Your task to perform on an android device: What's on my calendar tomorrow? Image 0: 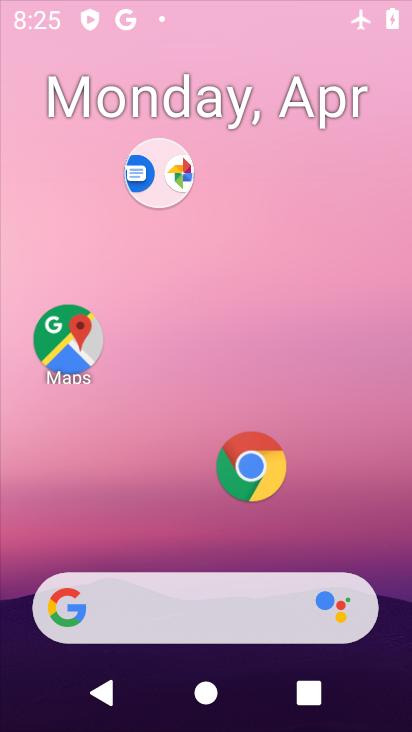
Step 0: click (296, 148)
Your task to perform on an android device: What's on my calendar tomorrow? Image 1: 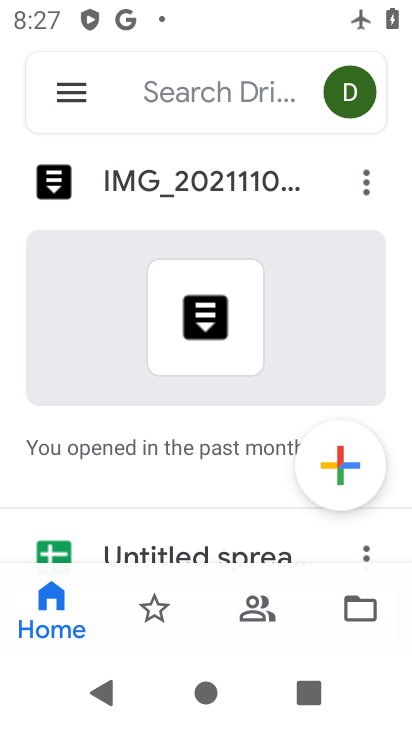
Step 1: click (284, 36)
Your task to perform on an android device: What's on my calendar tomorrow? Image 2: 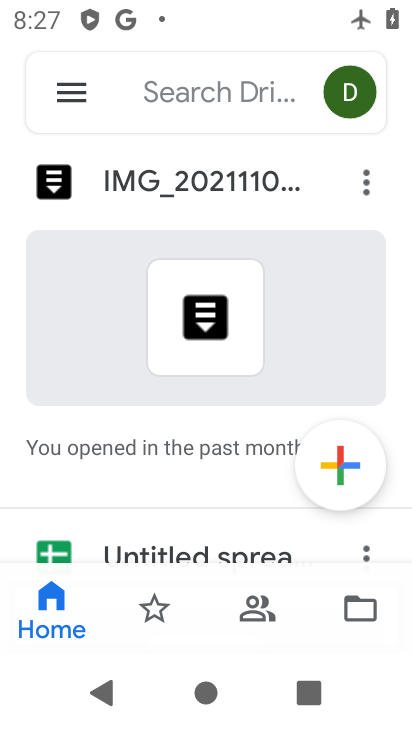
Step 2: drag from (199, 459) to (236, 150)
Your task to perform on an android device: What's on my calendar tomorrow? Image 3: 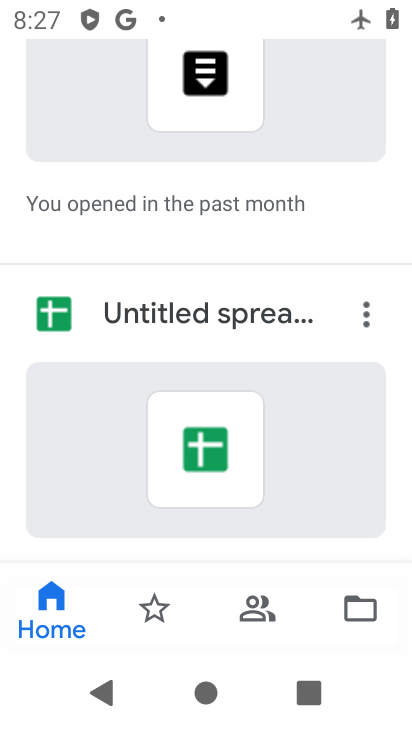
Step 3: press home button
Your task to perform on an android device: What's on my calendar tomorrow? Image 4: 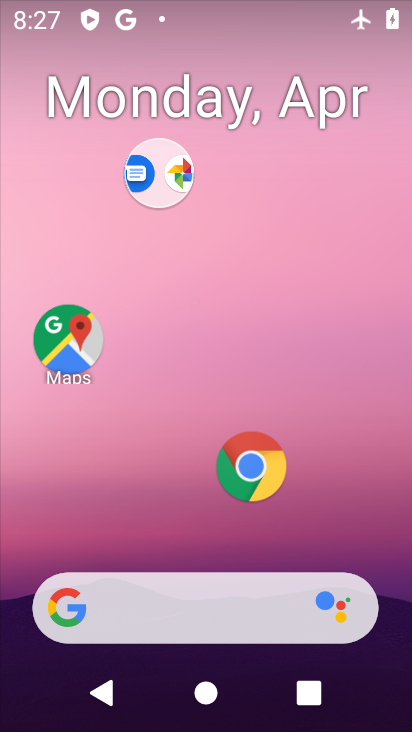
Step 4: drag from (193, 493) to (214, 89)
Your task to perform on an android device: What's on my calendar tomorrow? Image 5: 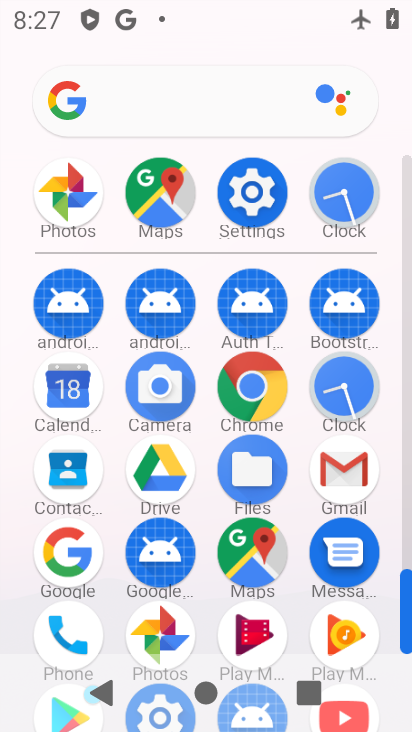
Step 5: click (53, 387)
Your task to perform on an android device: What's on my calendar tomorrow? Image 6: 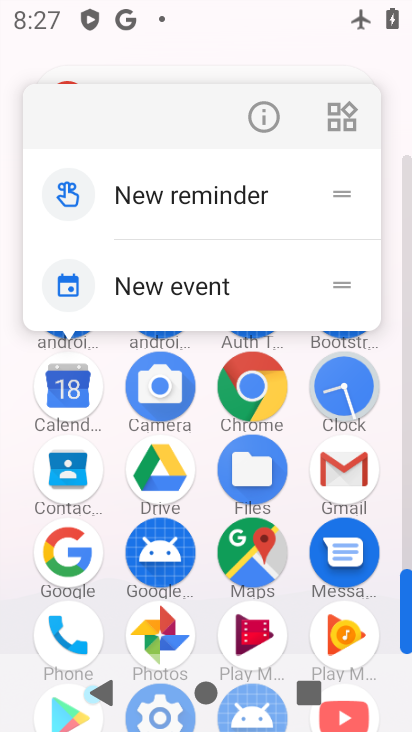
Step 6: click (260, 116)
Your task to perform on an android device: What's on my calendar tomorrow? Image 7: 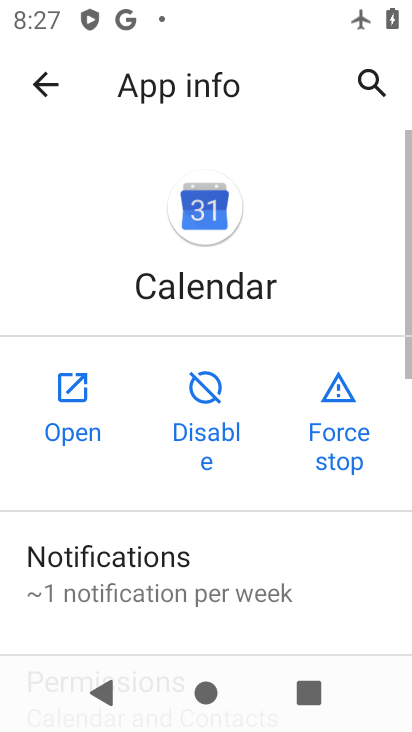
Step 7: click (91, 378)
Your task to perform on an android device: What's on my calendar tomorrow? Image 8: 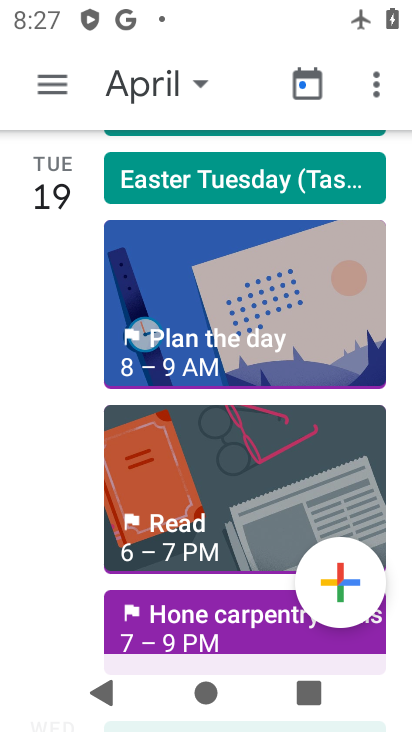
Step 8: click (177, 77)
Your task to perform on an android device: What's on my calendar tomorrow? Image 9: 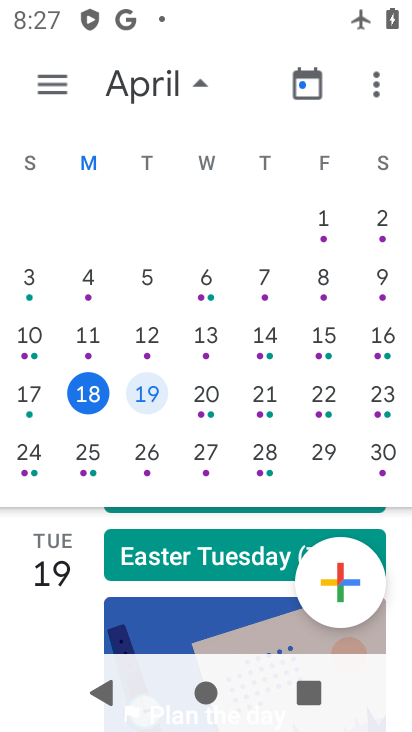
Step 9: click (208, 395)
Your task to perform on an android device: What's on my calendar tomorrow? Image 10: 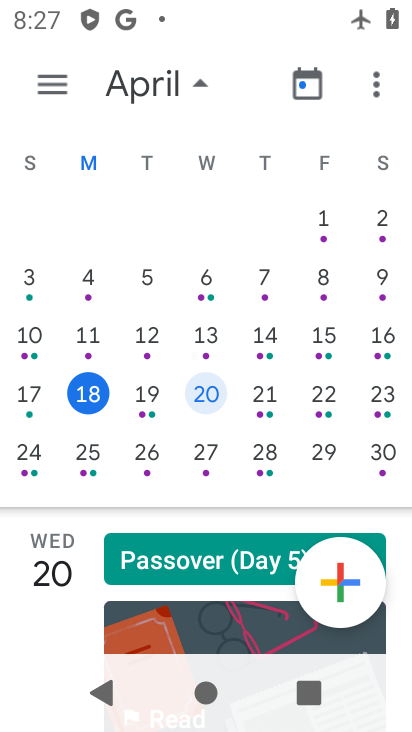
Step 10: click (156, 391)
Your task to perform on an android device: What's on my calendar tomorrow? Image 11: 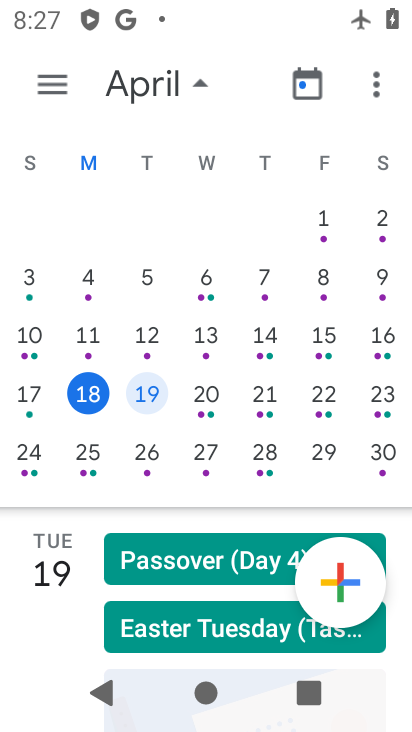
Step 11: task complete